Your task to perform on an android device: install app "PlayWell" Image 0: 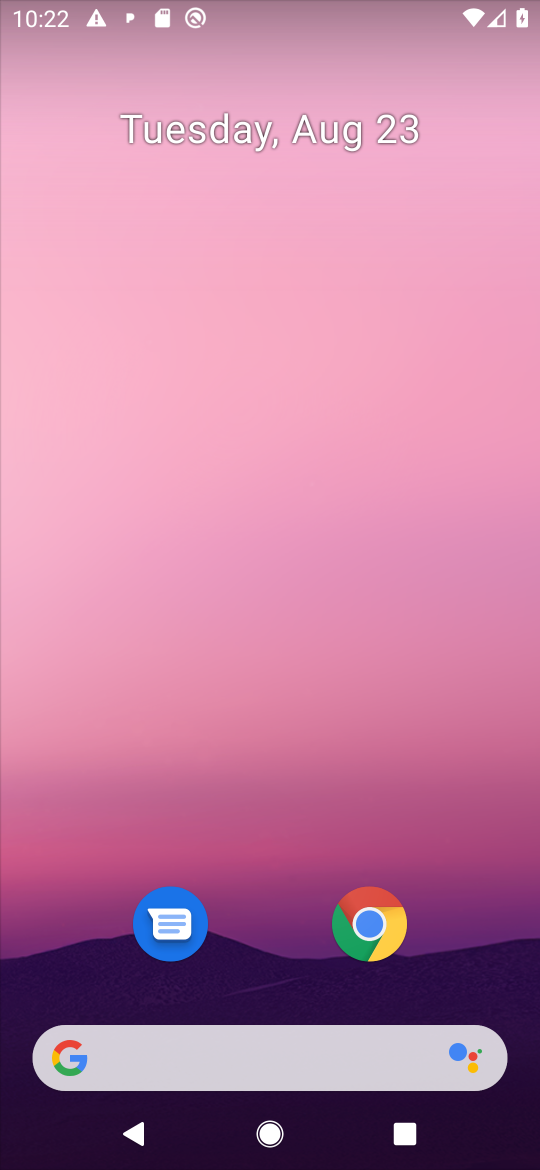
Step 0: press home button
Your task to perform on an android device: install app "PlayWell" Image 1: 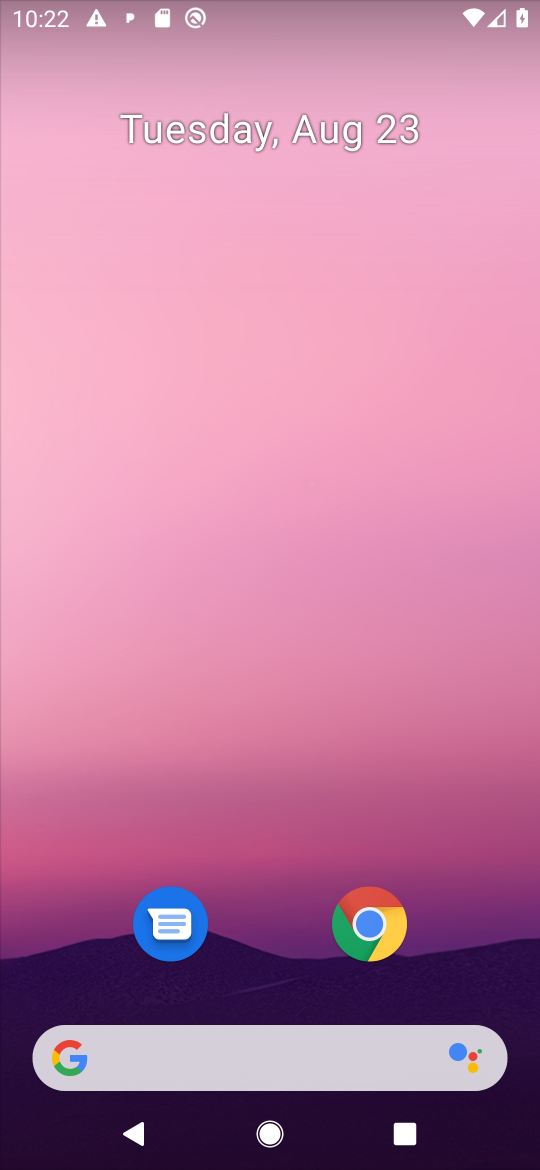
Step 1: drag from (455, 935) to (432, 223)
Your task to perform on an android device: install app "PlayWell" Image 2: 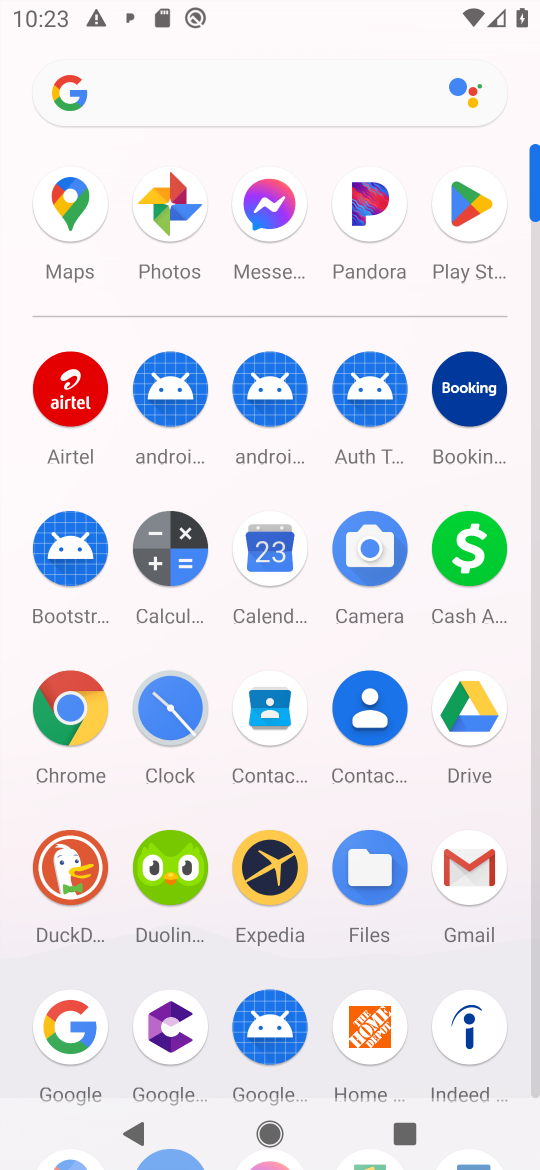
Step 2: click (462, 204)
Your task to perform on an android device: install app "PlayWell" Image 3: 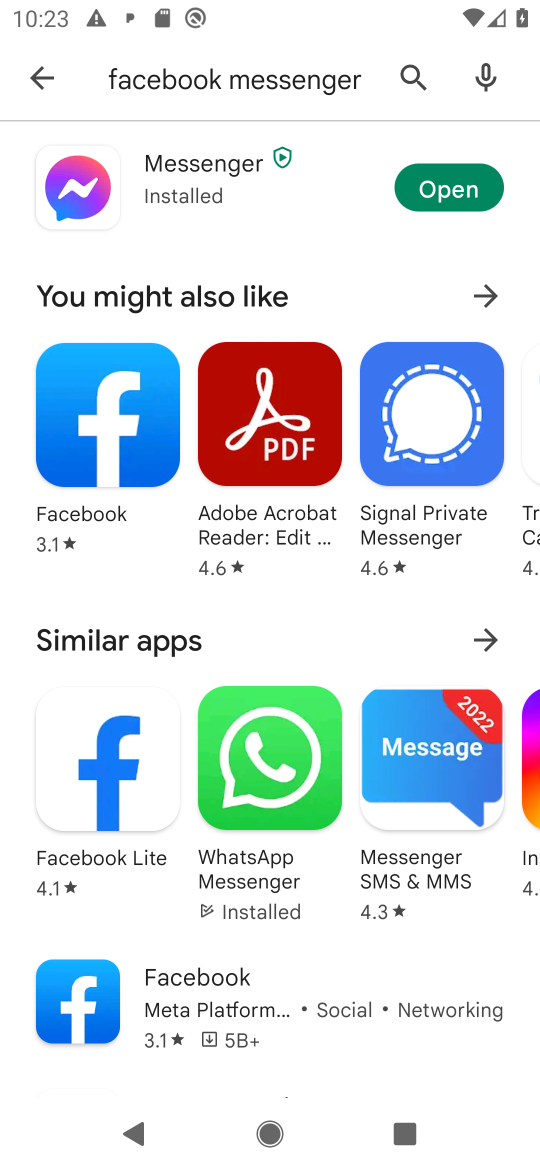
Step 3: press back button
Your task to perform on an android device: install app "PlayWell" Image 4: 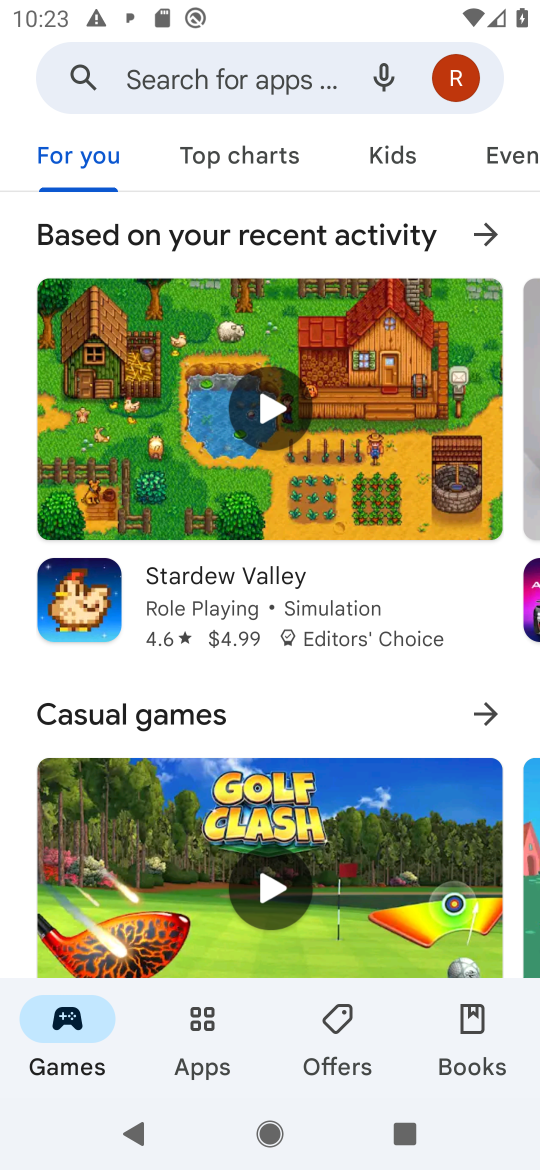
Step 4: click (277, 79)
Your task to perform on an android device: install app "PlayWell" Image 5: 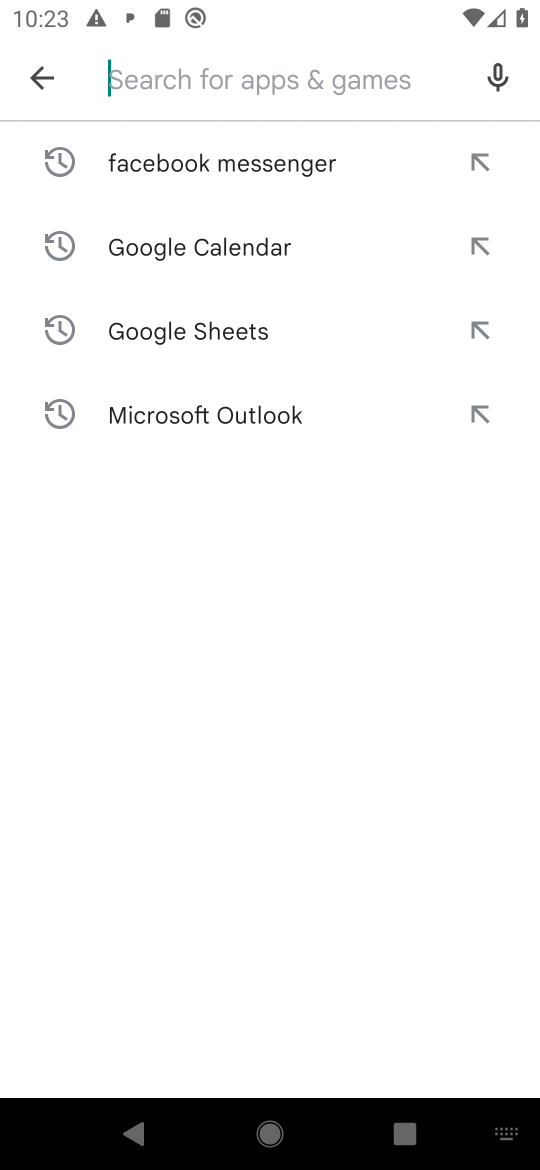
Step 5: type "play well"
Your task to perform on an android device: install app "PlayWell" Image 6: 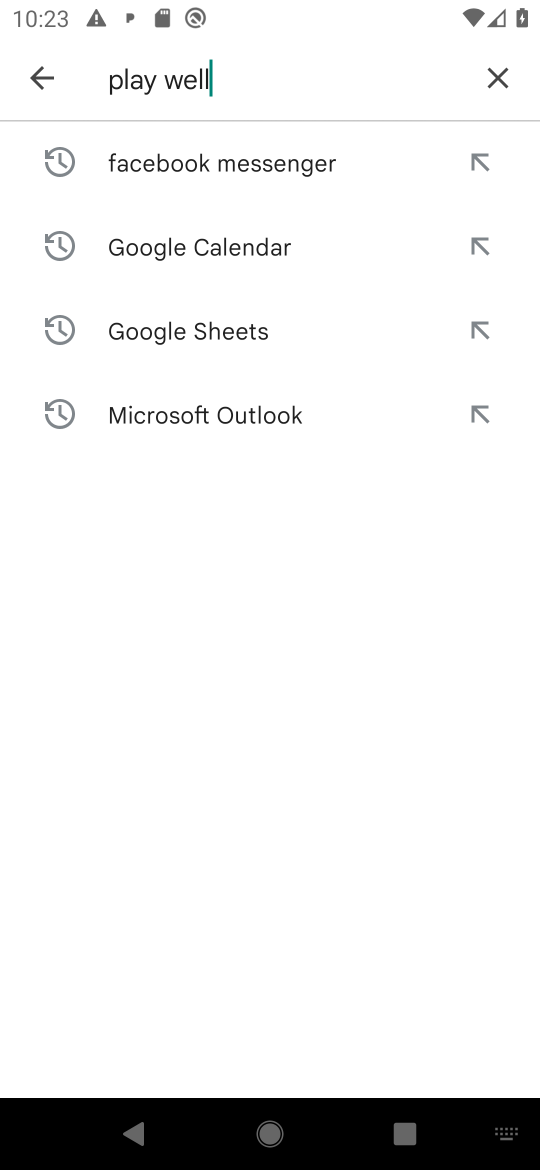
Step 6: press enter
Your task to perform on an android device: install app "PlayWell" Image 7: 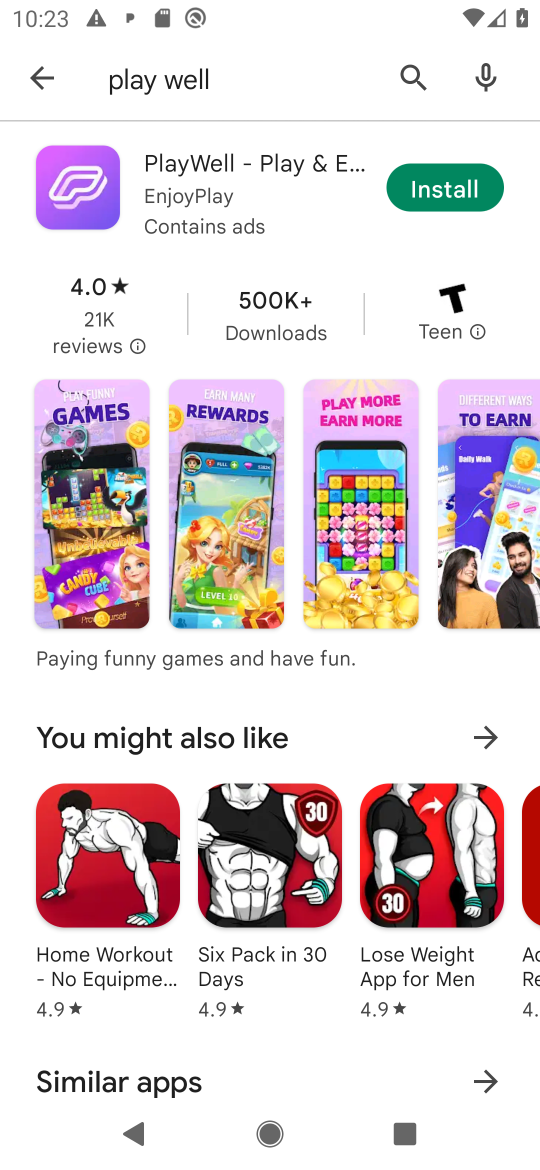
Step 7: click (450, 181)
Your task to perform on an android device: install app "PlayWell" Image 8: 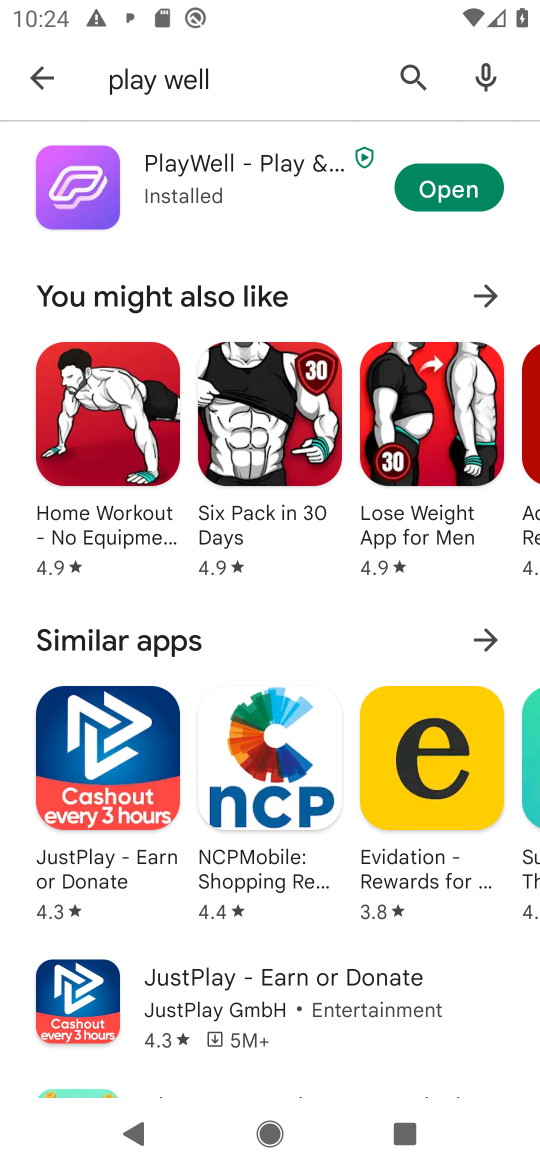
Step 8: task complete